Your task to perform on an android device: set default search engine in the chrome app Image 0: 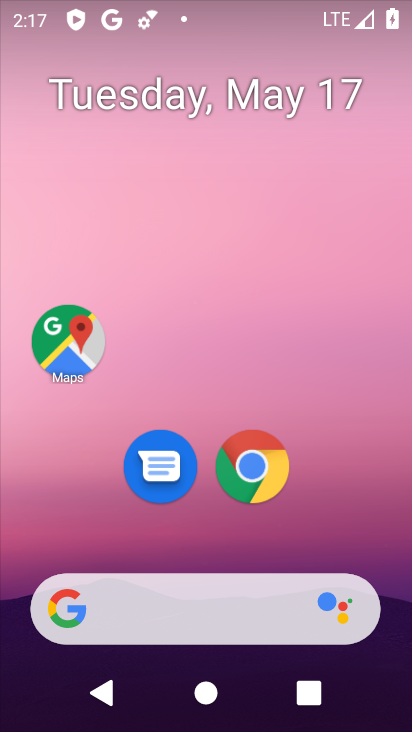
Step 0: click (254, 478)
Your task to perform on an android device: set default search engine in the chrome app Image 1: 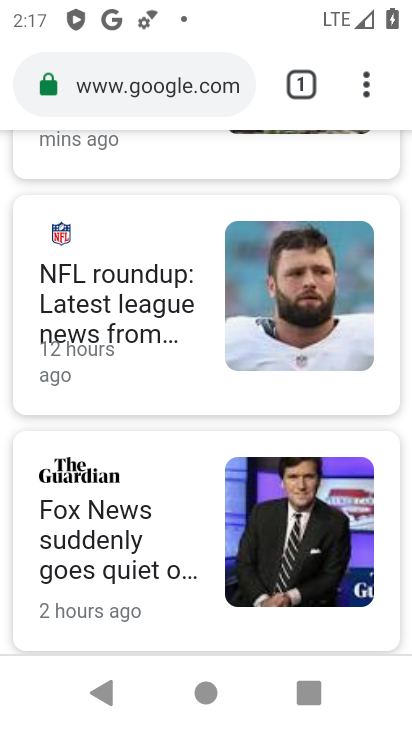
Step 1: drag from (371, 84) to (175, 517)
Your task to perform on an android device: set default search engine in the chrome app Image 2: 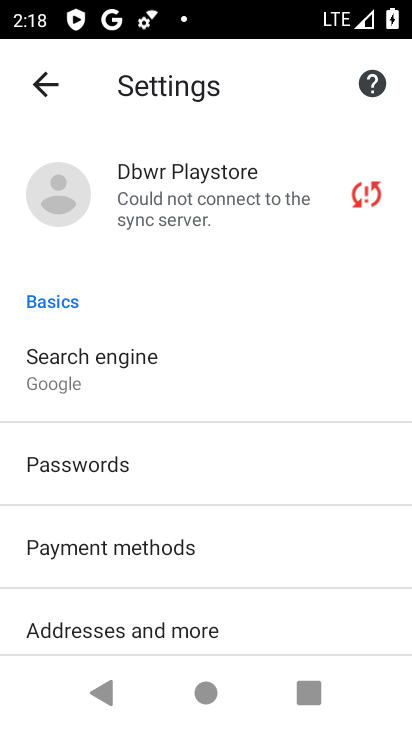
Step 2: click (144, 362)
Your task to perform on an android device: set default search engine in the chrome app Image 3: 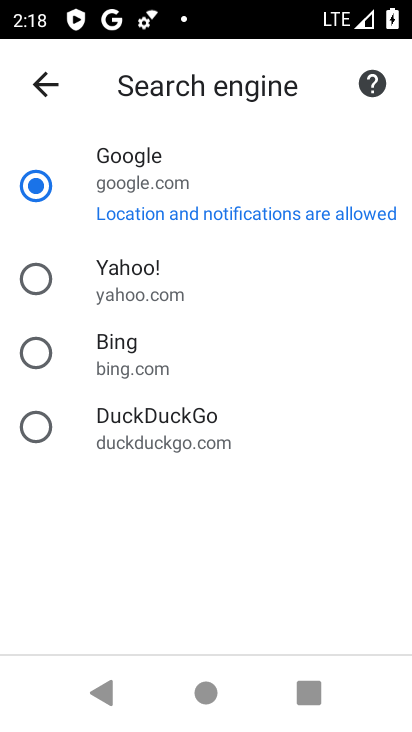
Step 3: task complete